Your task to perform on an android device: turn on bluetooth scan Image 0: 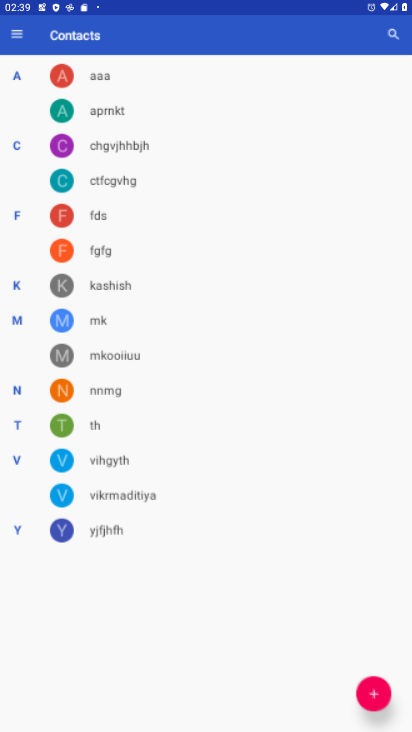
Step 0: press home button
Your task to perform on an android device: turn on bluetooth scan Image 1: 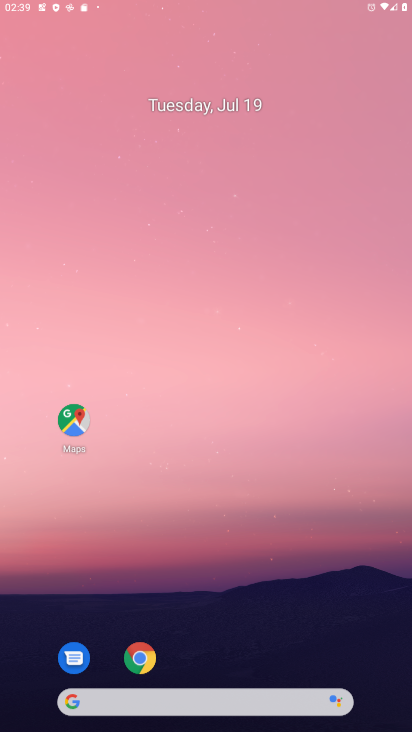
Step 1: drag from (280, 664) to (262, 177)
Your task to perform on an android device: turn on bluetooth scan Image 2: 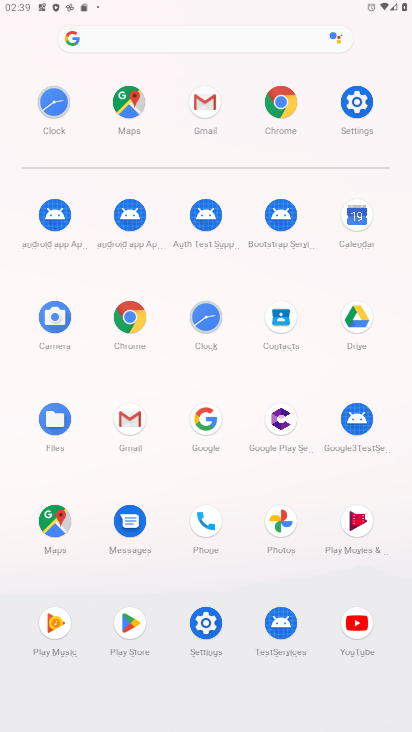
Step 2: click (365, 109)
Your task to perform on an android device: turn on bluetooth scan Image 3: 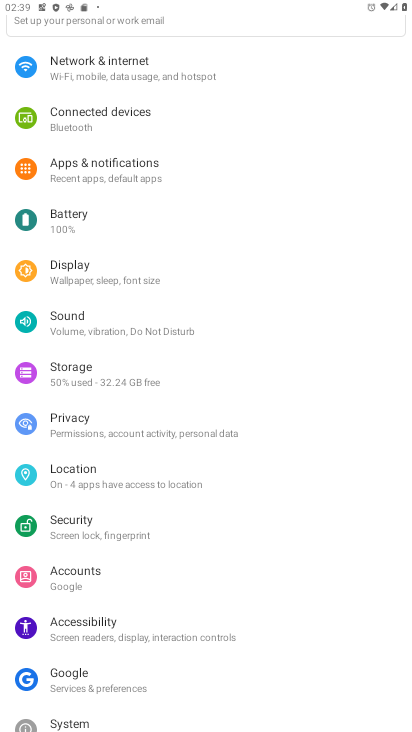
Step 3: click (68, 489)
Your task to perform on an android device: turn on bluetooth scan Image 4: 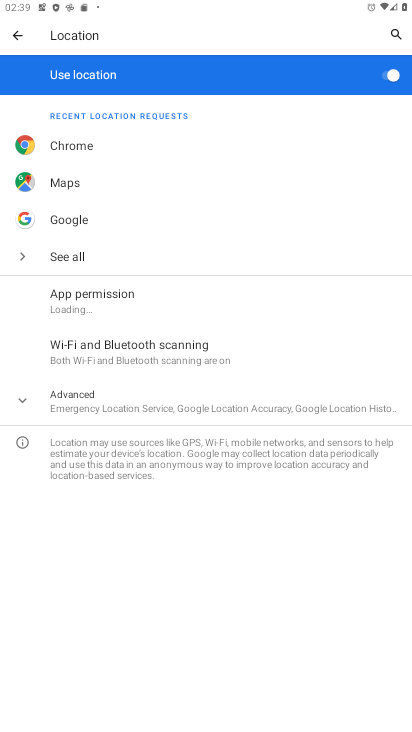
Step 4: click (126, 334)
Your task to perform on an android device: turn on bluetooth scan Image 5: 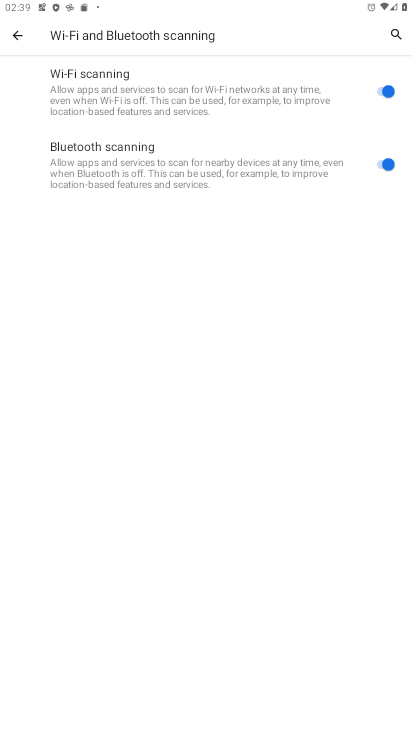
Step 5: task complete